Your task to perform on an android device: turn smart compose on in the gmail app Image 0: 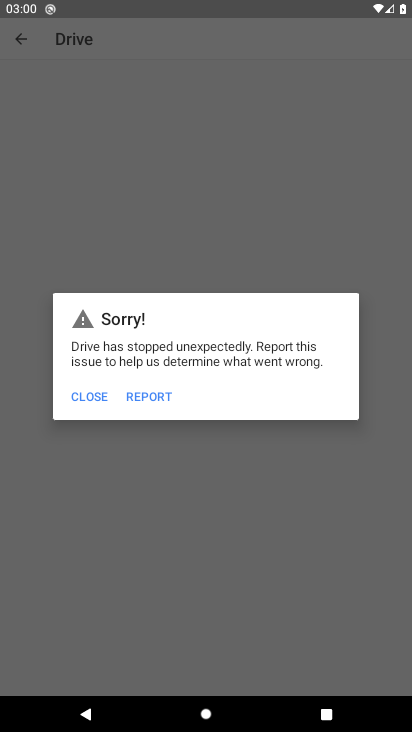
Step 0: press home button
Your task to perform on an android device: turn smart compose on in the gmail app Image 1: 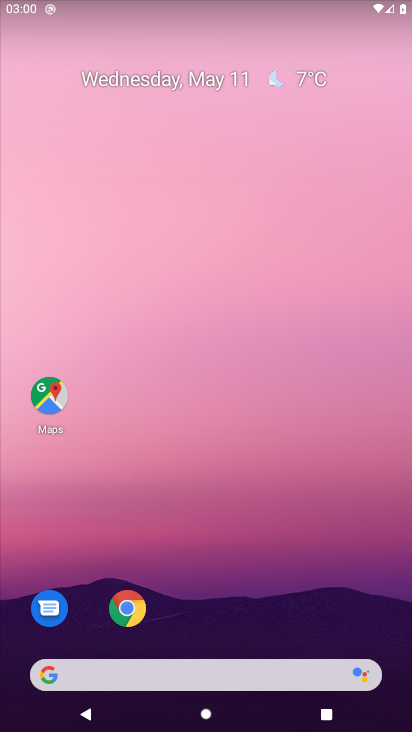
Step 1: drag from (212, 639) to (273, 121)
Your task to perform on an android device: turn smart compose on in the gmail app Image 2: 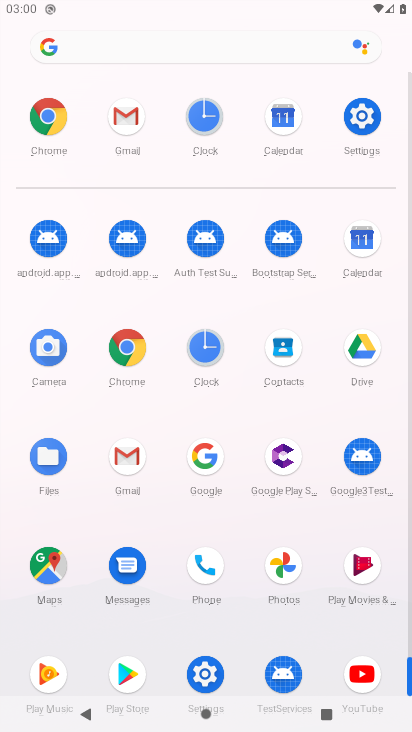
Step 2: click (128, 453)
Your task to perform on an android device: turn smart compose on in the gmail app Image 3: 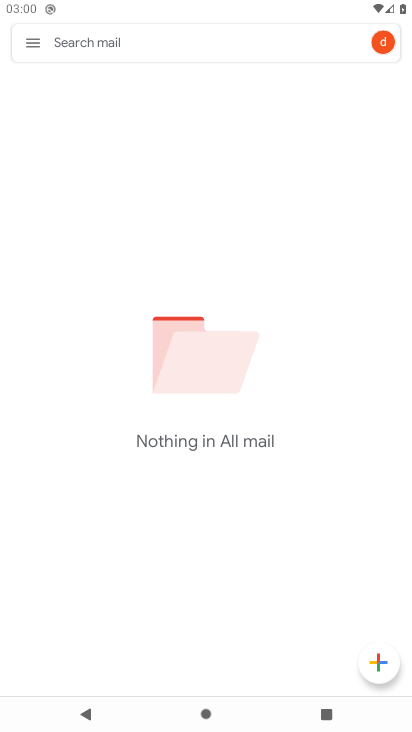
Step 3: click (36, 45)
Your task to perform on an android device: turn smart compose on in the gmail app Image 4: 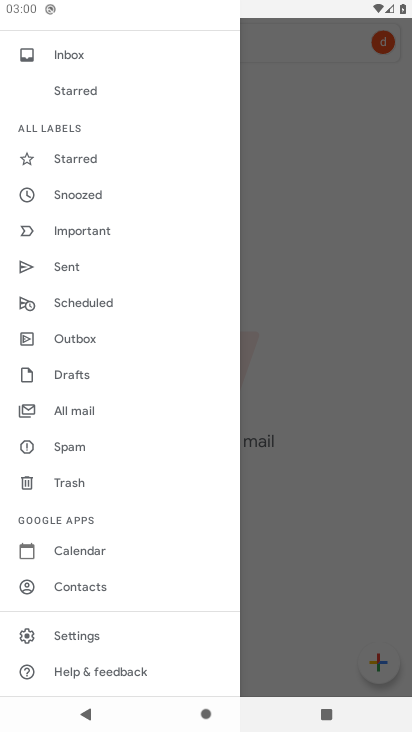
Step 4: click (98, 623)
Your task to perform on an android device: turn smart compose on in the gmail app Image 5: 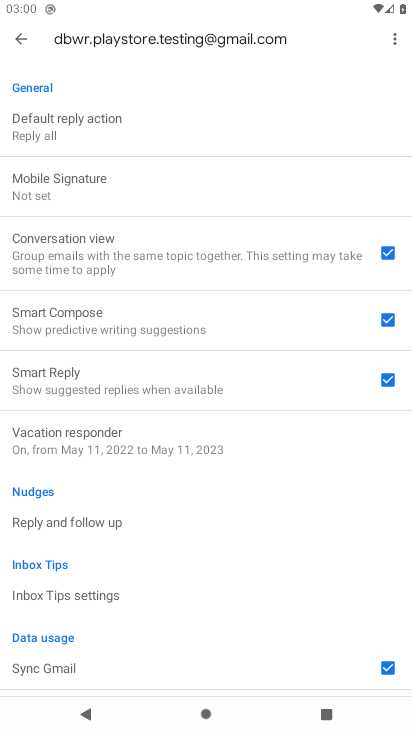
Step 5: task complete